Your task to perform on an android device: Add "jbl flip 4" to the cart on ebay Image 0: 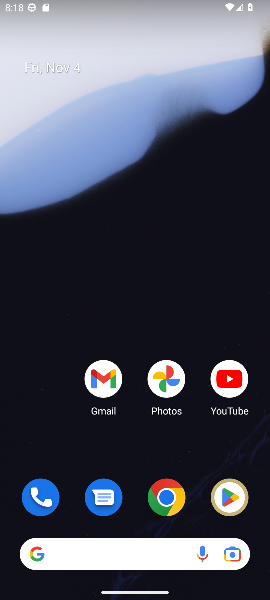
Step 0: click (164, 502)
Your task to perform on an android device: Add "jbl flip 4" to the cart on ebay Image 1: 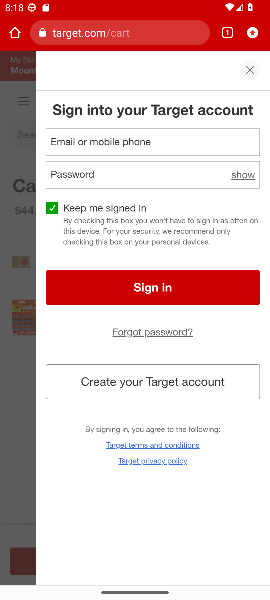
Step 1: click (117, 33)
Your task to perform on an android device: Add "jbl flip 4" to the cart on ebay Image 2: 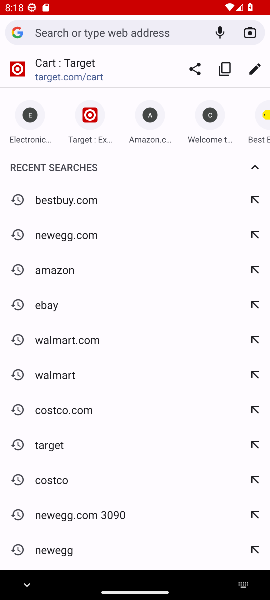
Step 2: click (41, 305)
Your task to perform on an android device: Add "jbl flip 4" to the cart on ebay Image 3: 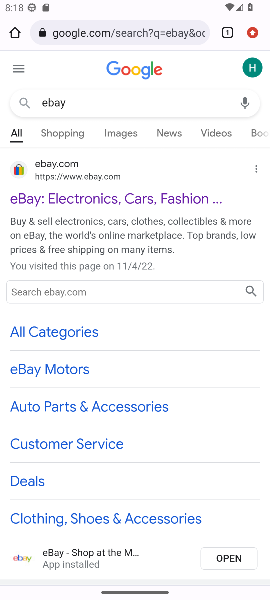
Step 3: click (66, 202)
Your task to perform on an android device: Add "jbl flip 4" to the cart on ebay Image 4: 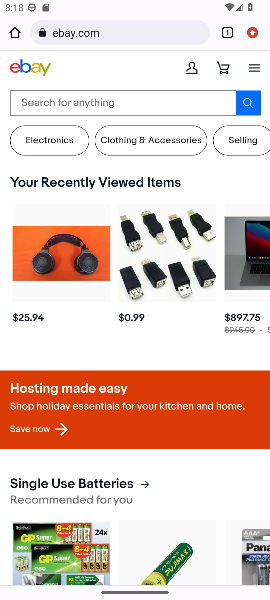
Step 4: click (70, 104)
Your task to perform on an android device: Add "jbl flip 4" to the cart on ebay Image 5: 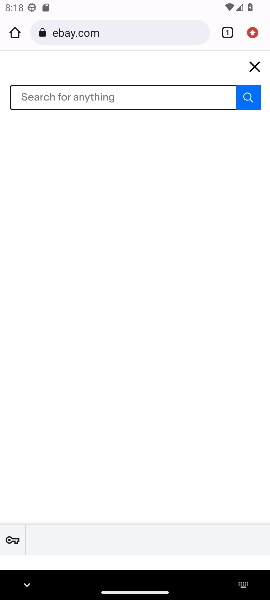
Step 5: click (42, 97)
Your task to perform on an android device: Add "jbl flip 4" to the cart on ebay Image 6: 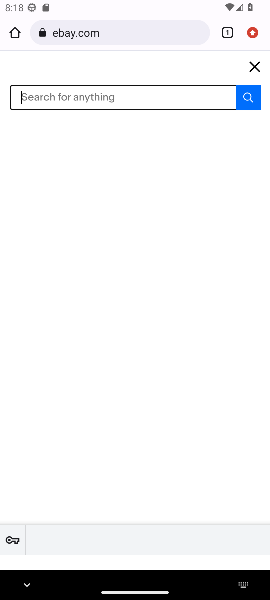
Step 6: type "jbl flip 4"
Your task to perform on an android device: Add "jbl flip 4" to the cart on ebay Image 7: 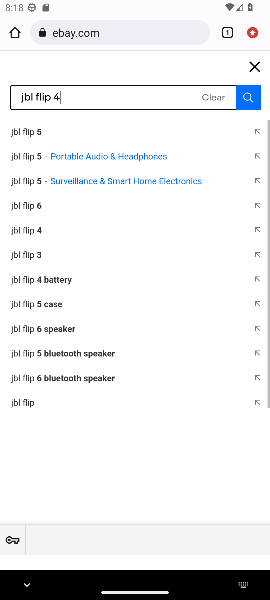
Step 7: click (25, 229)
Your task to perform on an android device: Add "jbl flip 4" to the cart on ebay Image 8: 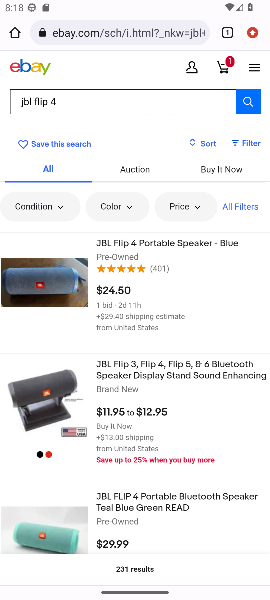
Step 8: click (100, 276)
Your task to perform on an android device: Add "jbl flip 4" to the cart on ebay Image 9: 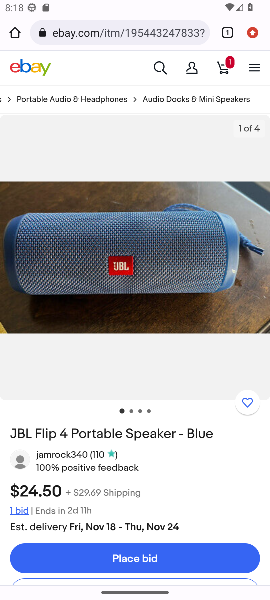
Step 9: drag from (154, 508) to (150, 291)
Your task to perform on an android device: Add "jbl flip 4" to the cart on ebay Image 10: 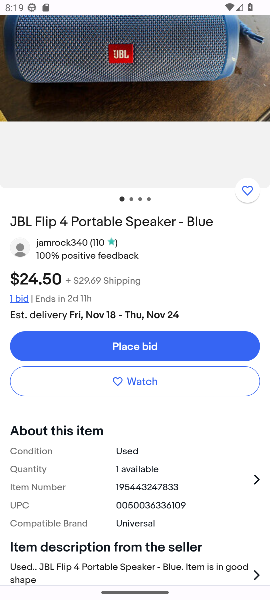
Step 10: press back button
Your task to perform on an android device: Add "jbl flip 4" to the cart on ebay Image 11: 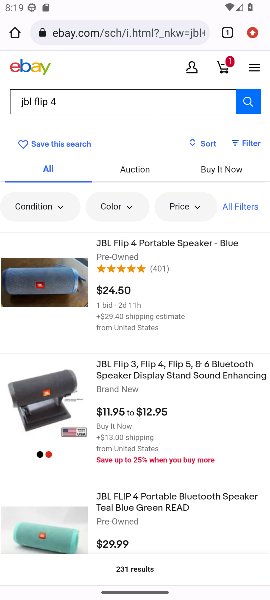
Step 11: drag from (143, 445) to (149, 342)
Your task to perform on an android device: Add "jbl flip 4" to the cart on ebay Image 12: 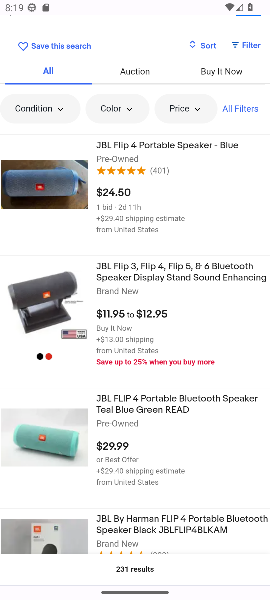
Step 12: click (109, 412)
Your task to perform on an android device: Add "jbl flip 4" to the cart on ebay Image 13: 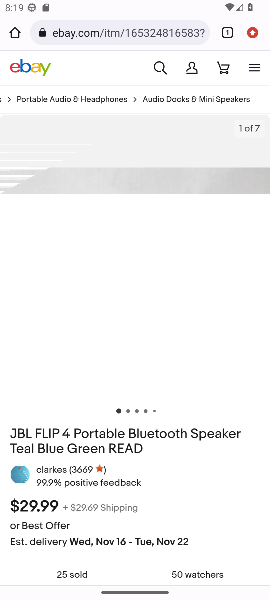
Step 13: drag from (129, 435) to (126, 237)
Your task to perform on an android device: Add "jbl flip 4" to the cart on ebay Image 14: 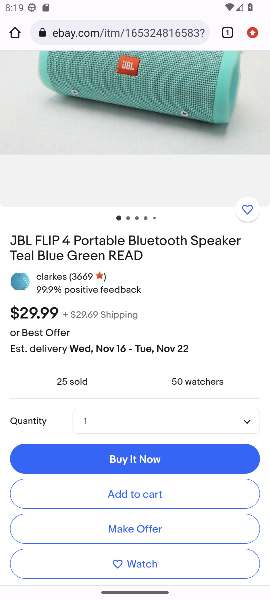
Step 14: click (136, 496)
Your task to perform on an android device: Add "jbl flip 4" to the cart on ebay Image 15: 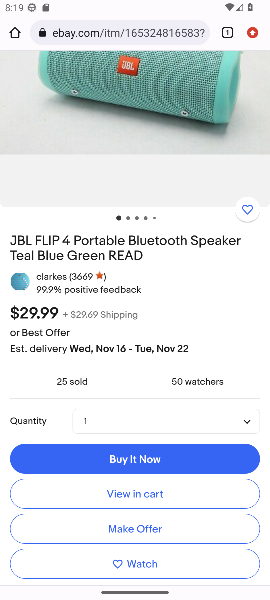
Step 15: click (123, 490)
Your task to perform on an android device: Add "jbl flip 4" to the cart on ebay Image 16: 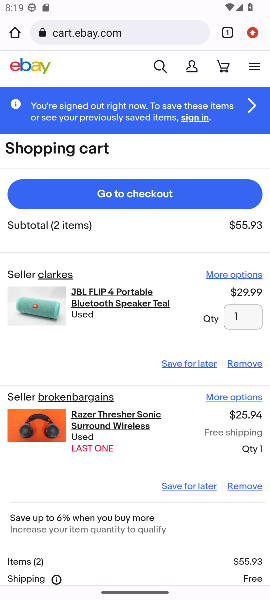
Step 16: task complete